Your task to perform on an android device: toggle location history Image 0: 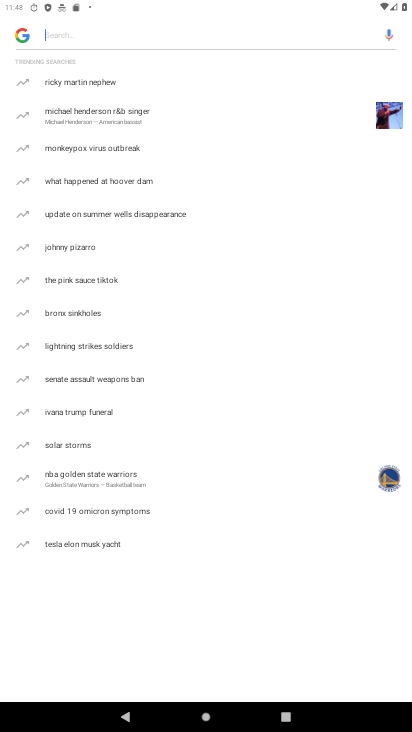
Step 0: press home button
Your task to perform on an android device: toggle location history Image 1: 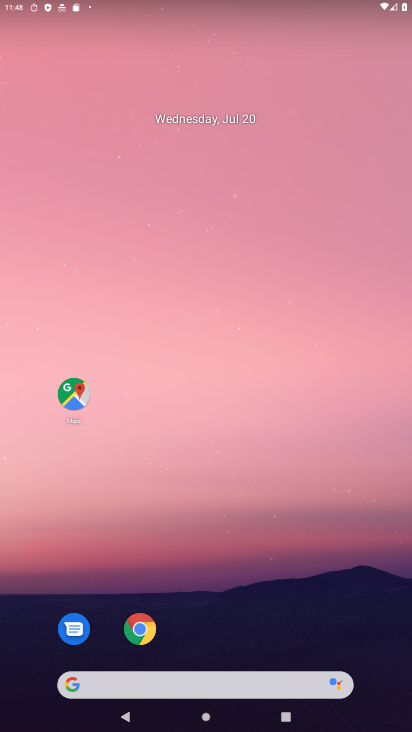
Step 1: drag from (206, 689) to (281, 156)
Your task to perform on an android device: toggle location history Image 2: 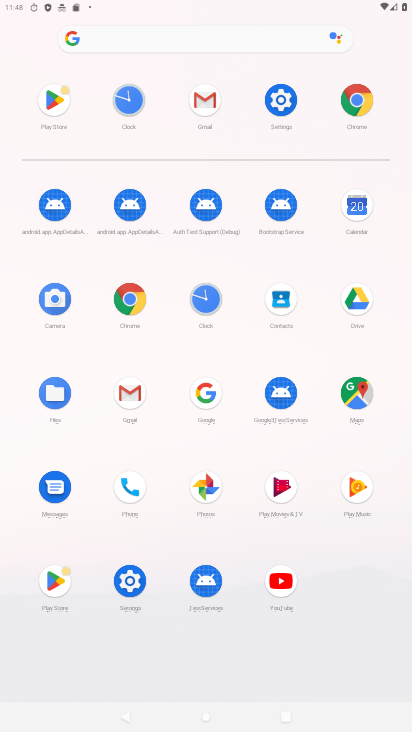
Step 2: click (286, 96)
Your task to perform on an android device: toggle location history Image 3: 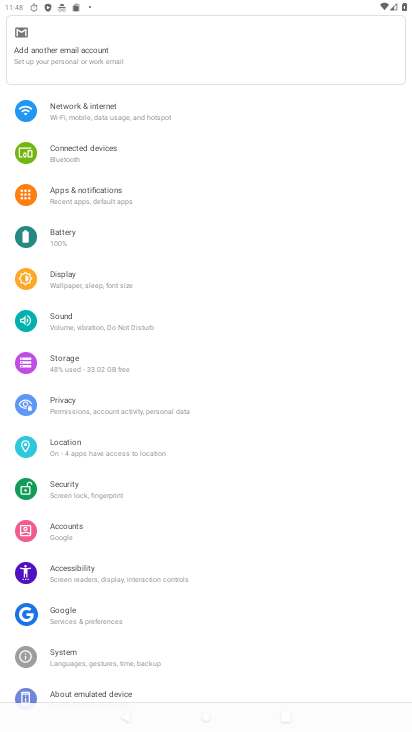
Step 3: click (81, 450)
Your task to perform on an android device: toggle location history Image 4: 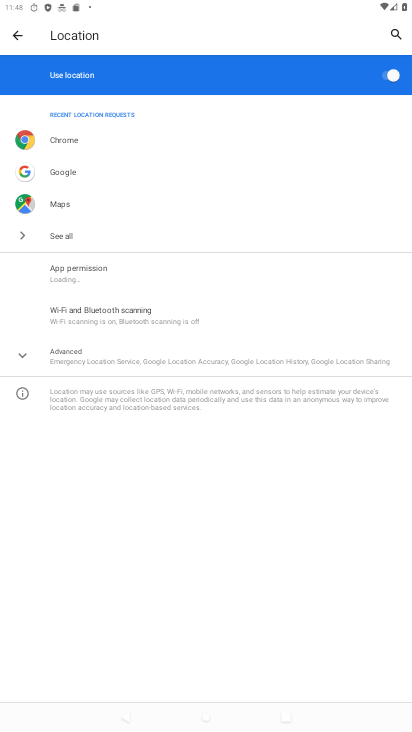
Step 4: click (109, 361)
Your task to perform on an android device: toggle location history Image 5: 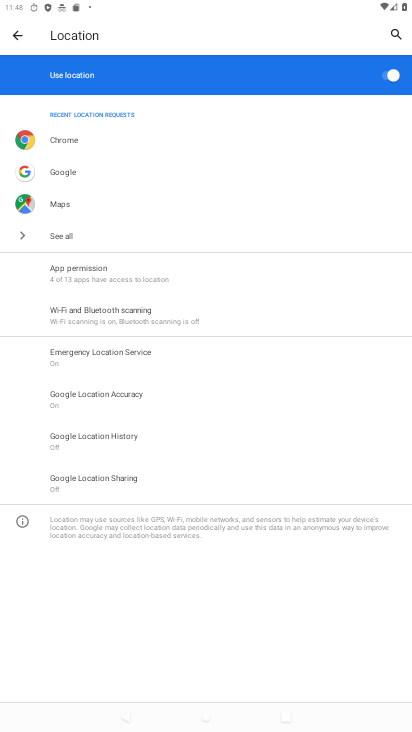
Step 5: click (131, 436)
Your task to perform on an android device: toggle location history Image 6: 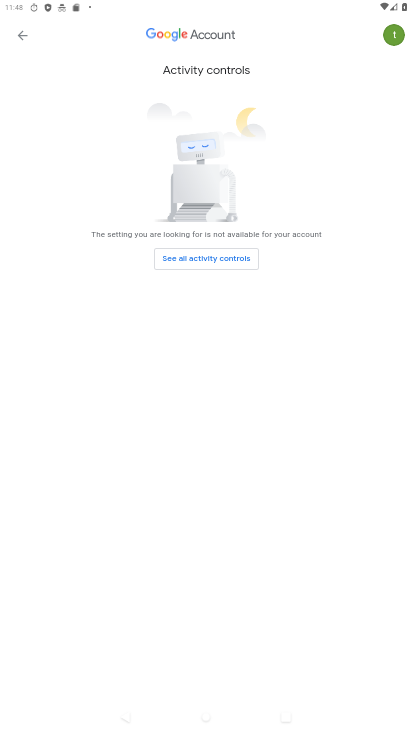
Step 6: click (237, 258)
Your task to perform on an android device: toggle location history Image 7: 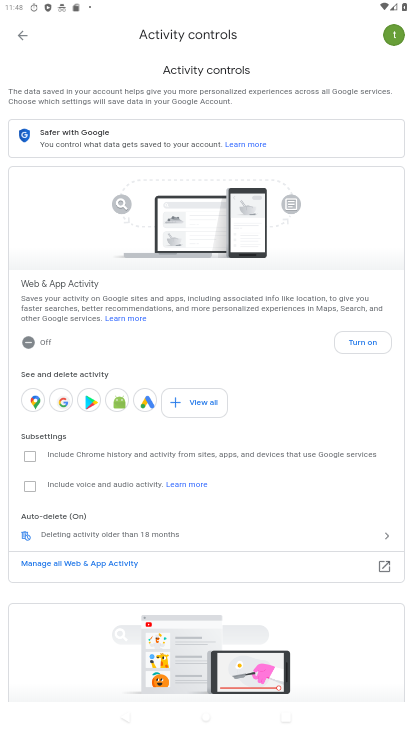
Step 7: click (362, 346)
Your task to perform on an android device: toggle location history Image 8: 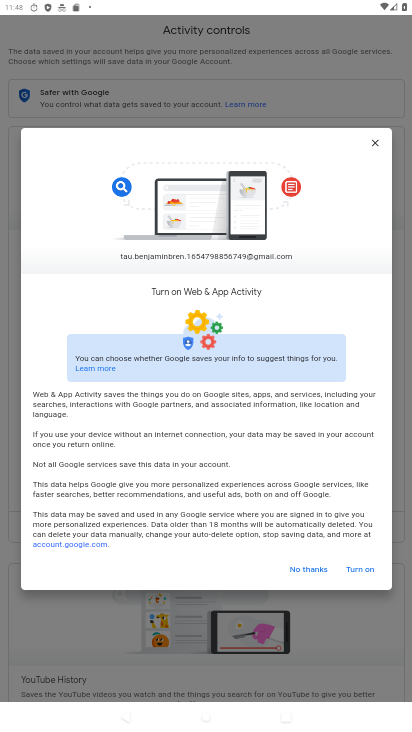
Step 8: click (351, 573)
Your task to perform on an android device: toggle location history Image 9: 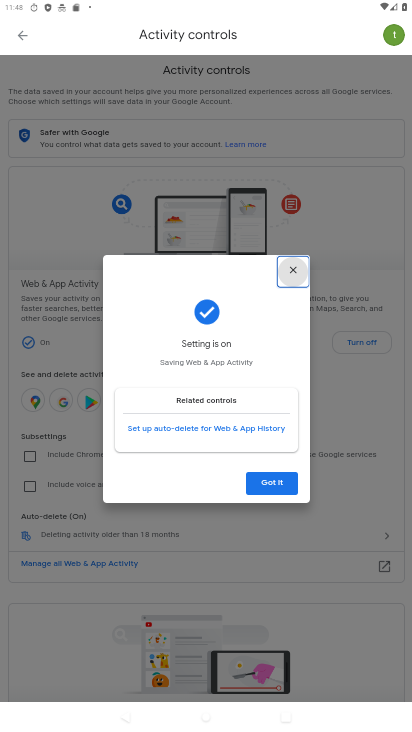
Step 9: click (284, 480)
Your task to perform on an android device: toggle location history Image 10: 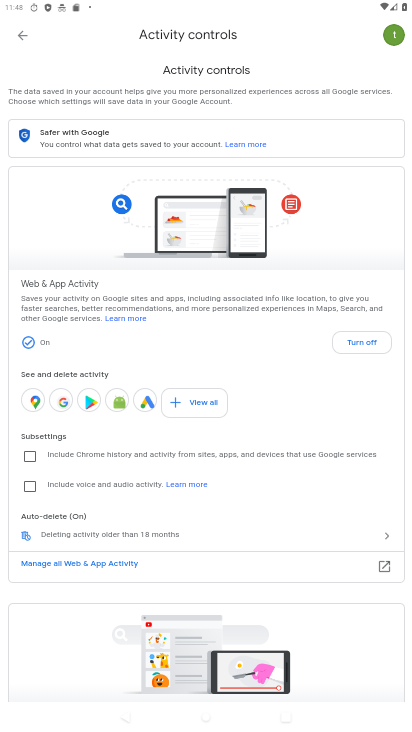
Step 10: task complete